Your task to perform on an android device: Search for sushi restaurants on Maps Image 0: 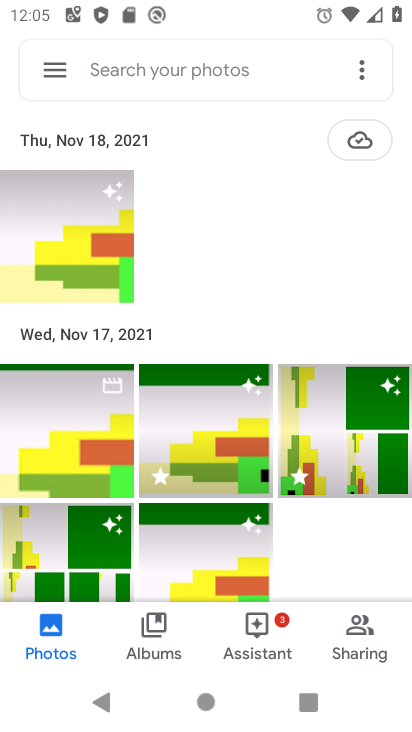
Step 0: press home button
Your task to perform on an android device: Search for sushi restaurants on Maps Image 1: 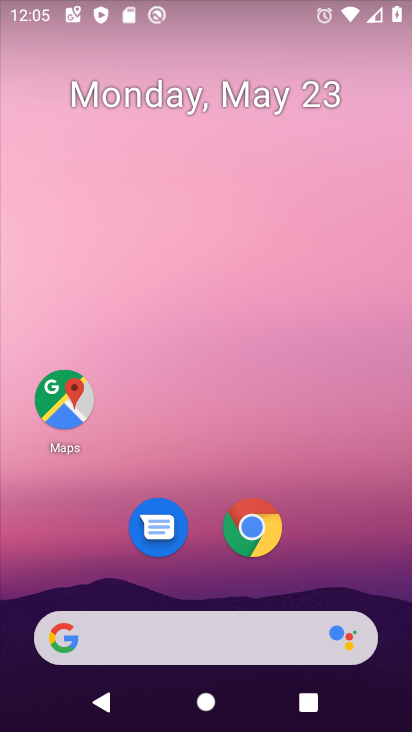
Step 1: click (54, 420)
Your task to perform on an android device: Search for sushi restaurants on Maps Image 2: 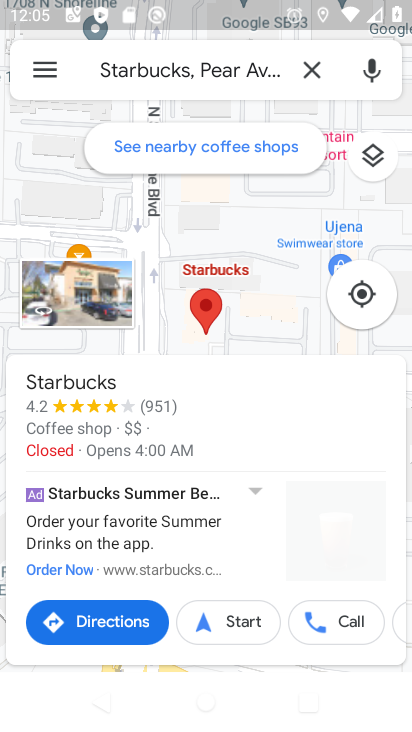
Step 2: click (331, 72)
Your task to perform on an android device: Search for sushi restaurants on Maps Image 3: 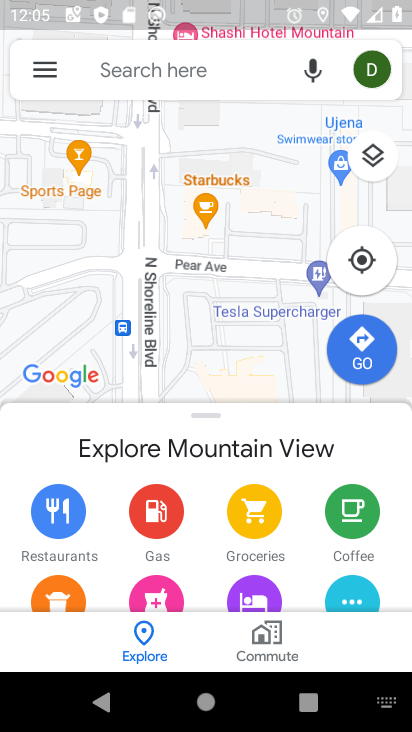
Step 3: click (255, 72)
Your task to perform on an android device: Search for sushi restaurants on Maps Image 4: 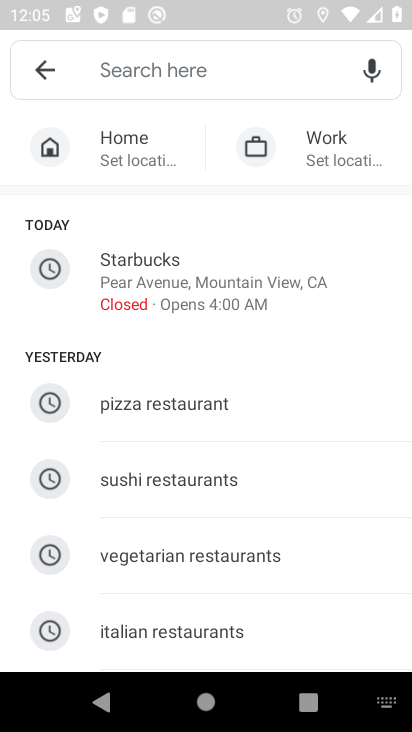
Step 4: click (199, 72)
Your task to perform on an android device: Search for sushi restaurants on Maps Image 5: 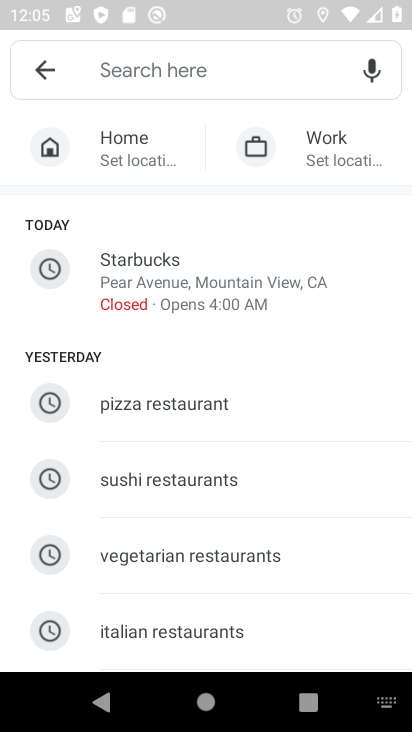
Step 5: click (199, 72)
Your task to perform on an android device: Search for sushi restaurants on Maps Image 6: 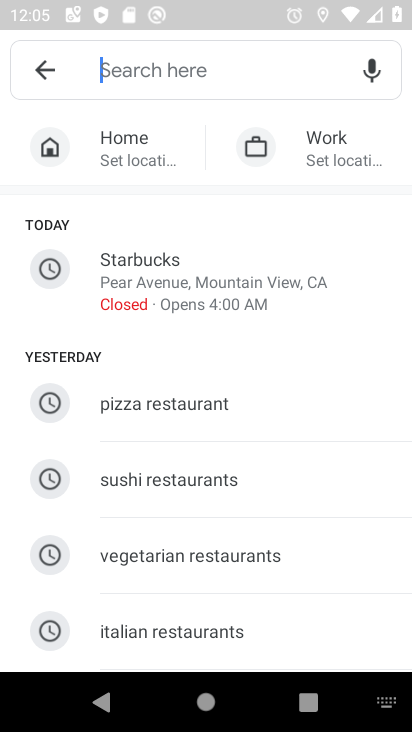
Step 6: click (206, 486)
Your task to perform on an android device: Search for sushi restaurants on Maps Image 7: 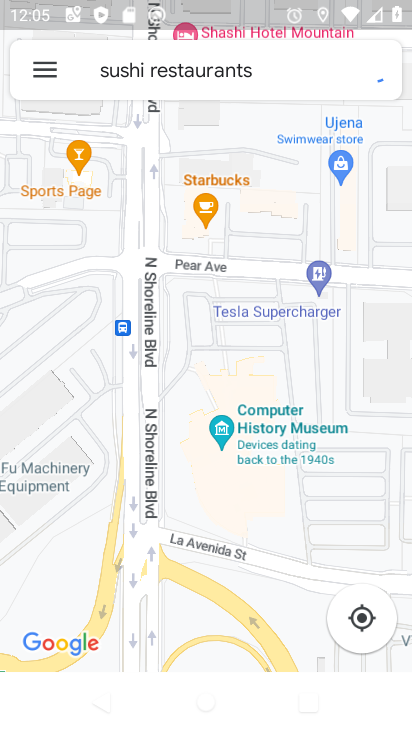
Step 7: task complete